Your task to perform on an android device: Go to Amazon Image 0: 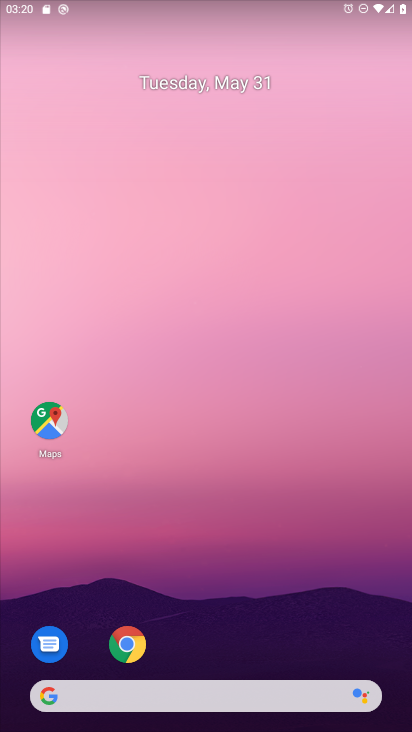
Step 0: drag from (233, 603) to (245, 134)
Your task to perform on an android device: Go to Amazon Image 1: 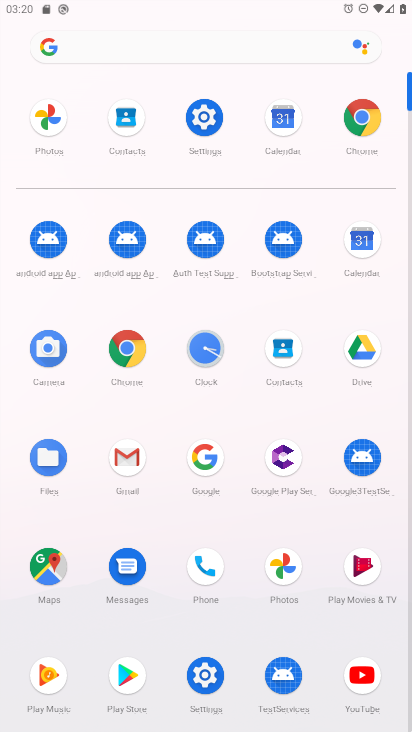
Step 1: click (131, 347)
Your task to perform on an android device: Go to Amazon Image 2: 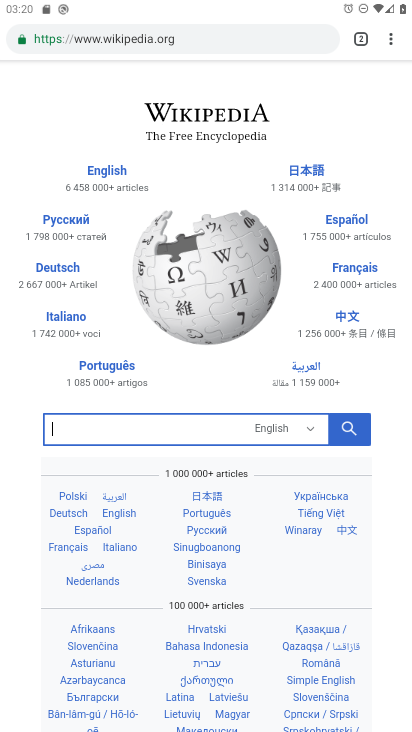
Step 2: click (212, 34)
Your task to perform on an android device: Go to Amazon Image 3: 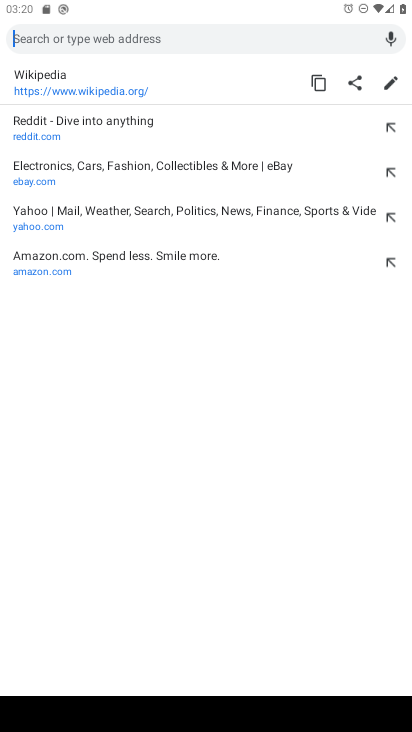
Step 3: click (34, 266)
Your task to perform on an android device: Go to Amazon Image 4: 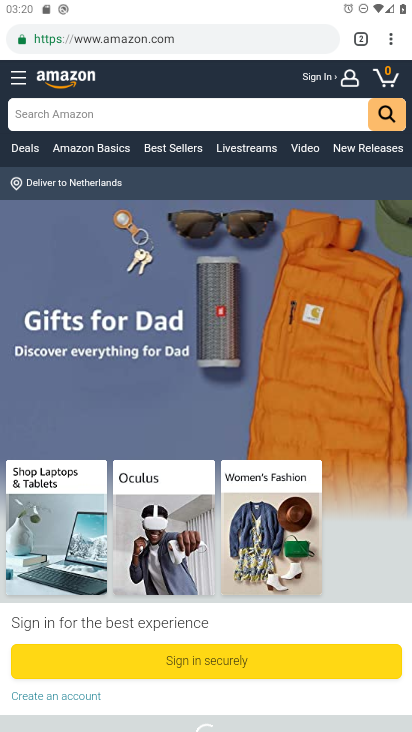
Step 4: task complete